Your task to perform on an android device: Go to Maps Image 0: 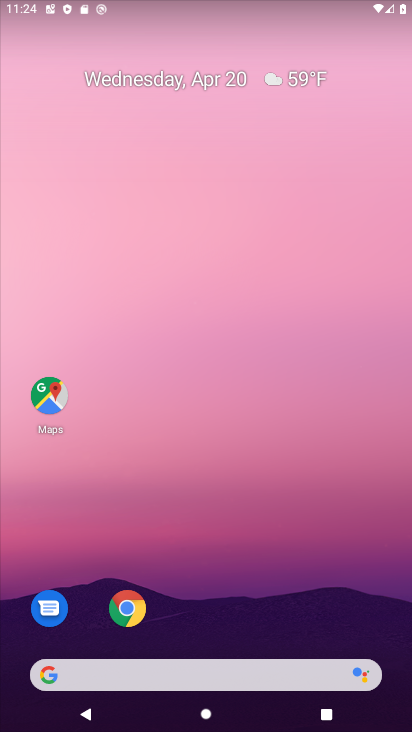
Step 0: click (49, 393)
Your task to perform on an android device: Go to Maps Image 1: 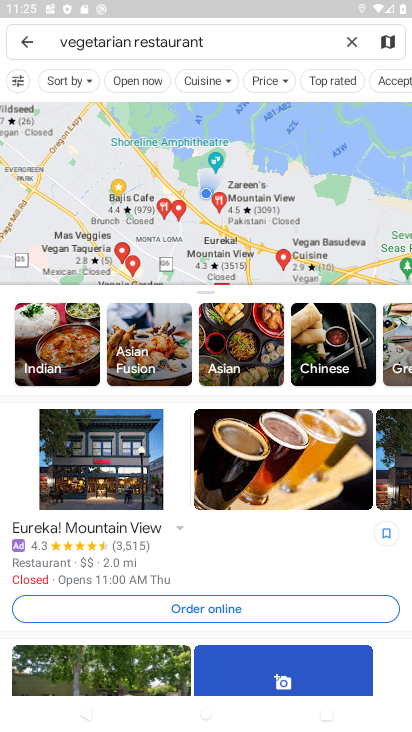
Step 1: task complete